Your task to perform on an android device: Play the last video I watched on Youtube Image 0: 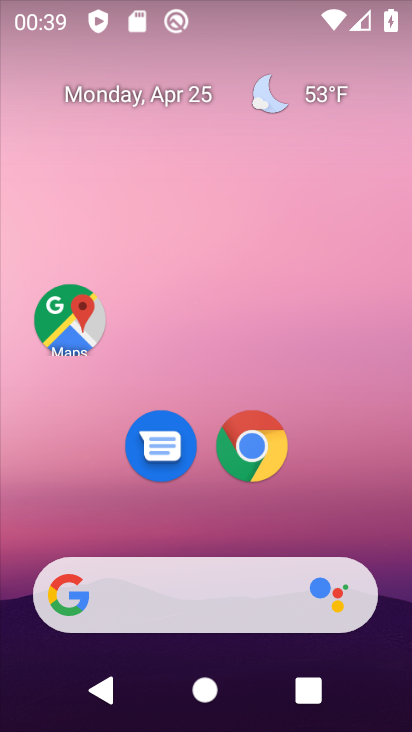
Step 0: drag from (227, 505) to (300, 48)
Your task to perform on an android device: Play the last video I watched on Youtube Image 1: 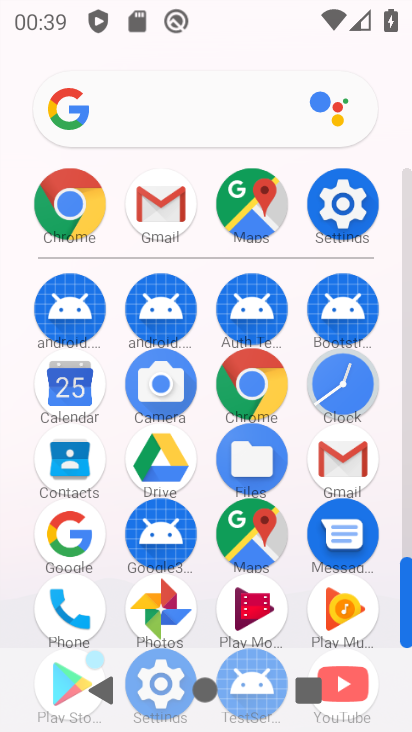
Step 1: drag from (199, 496) to (207, 281)
Your task to perform on an android device: Play the last video I watched on Youtube Image 2: 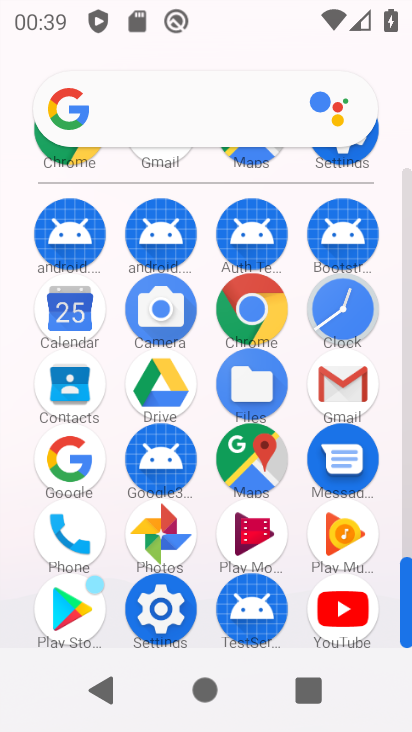
Step 2: click (339, 613)
Your task to perform on an android device: Play the last video I watched on Youtube Image 3: 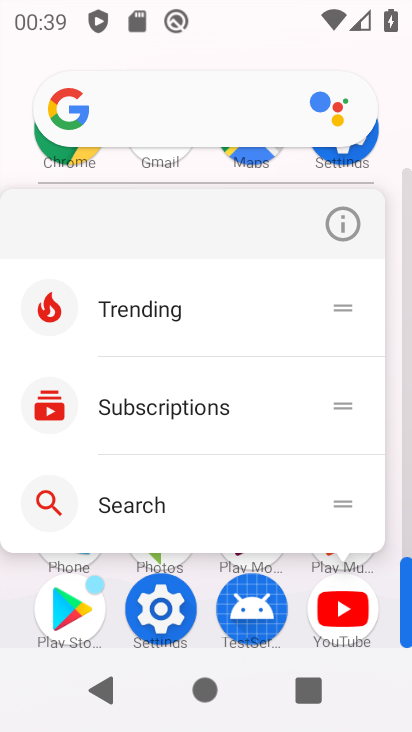
Step 3: click (337, 616)
Your task to perform on an android device: Play the last video I watched on Youtube Image 4: 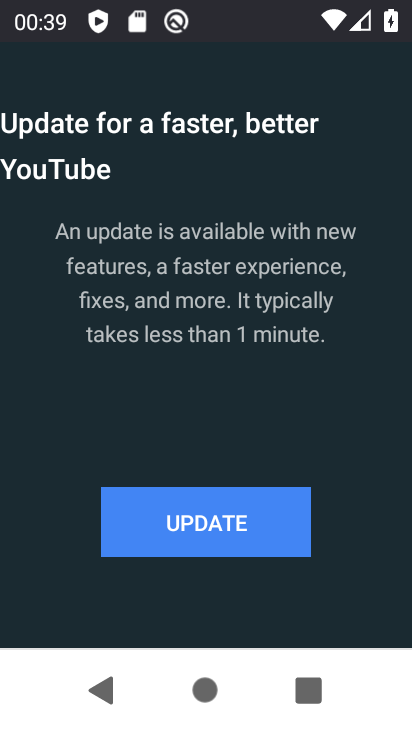
Step 4: click (190, 530)
Your task to perform on an android device: Play the last video I watched on Youtube Image 5: 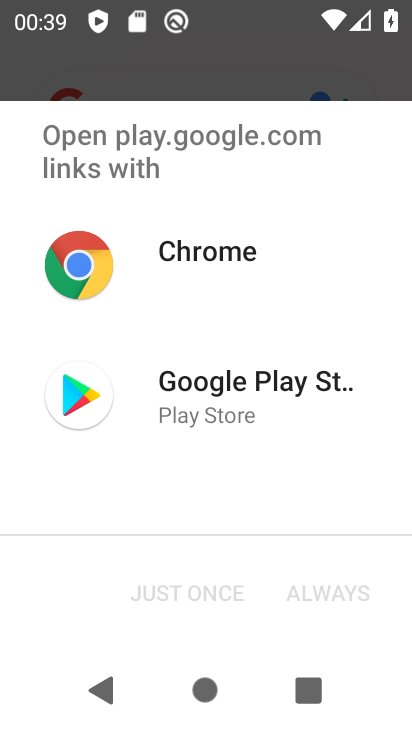
Step 5: click (224, 397)
Your task to perform on an android device: Play the last video I watched on Youtube Image 6: 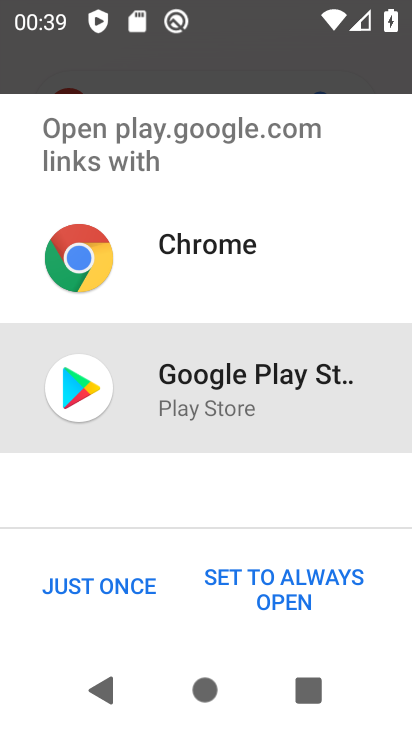
Step 6: click (93, 571)
Your task to perform on an android device: Play the last video I watched on Youtube Image 7: 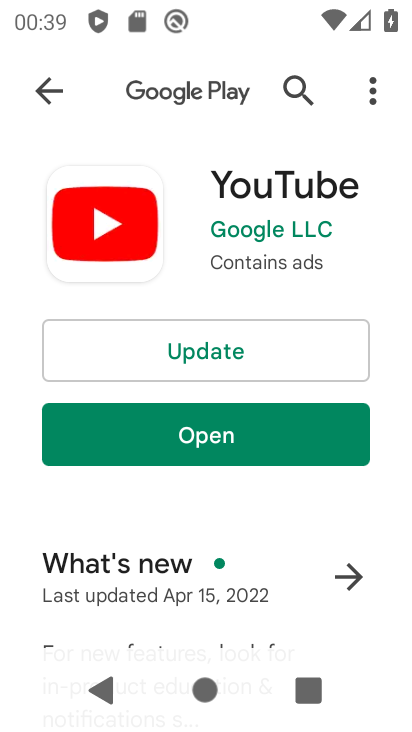
Step 7: click (189, 362)
Your task to perform on an android device: Play the last video I watched on Youtube Image 8: 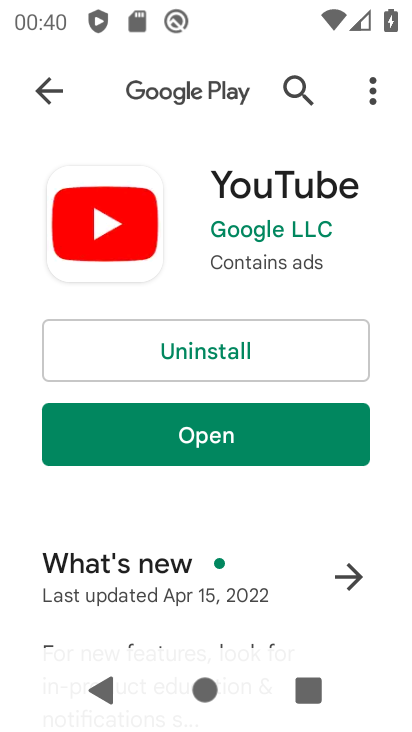
Step 8: click (252, 448)
Your task to perform on an android device: Play the last video I watched on Youtube Image 9: 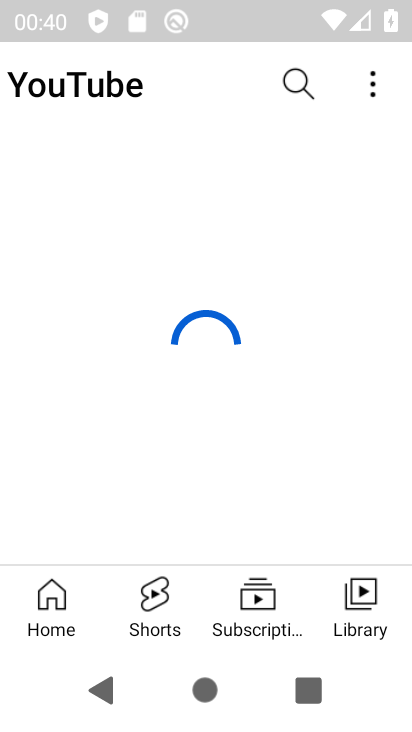
Step 9: click (356, 626)
Your task to perform on an android device: Play the last video I watched on Youtube Image 10: 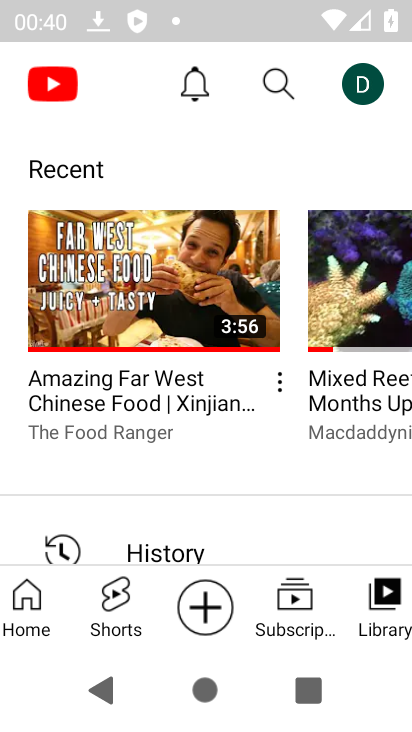
Step 10: click (129, 308)
Your task to perform on an android device: Play the last video I watched on Youtube Image 11: 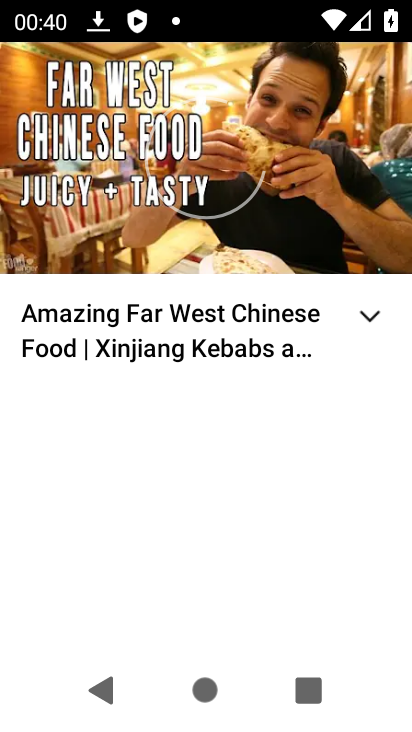
Step 11: task complete